Your task to perform on an android device: Go to internet settings Image 0: 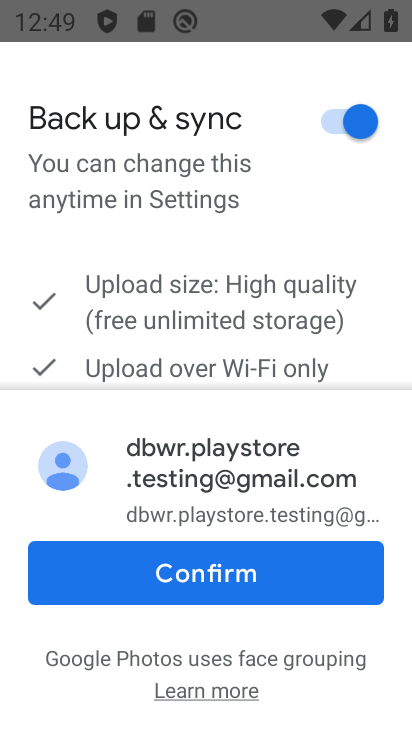
Step 0: click (285, 567)
Your task to perform on an android device: Go to internet settings Image 1: 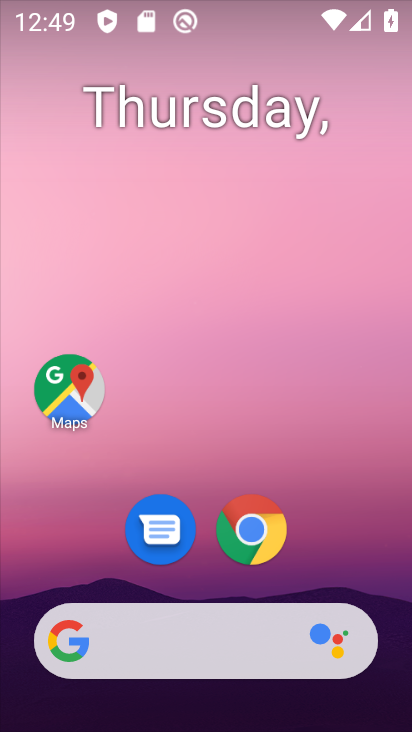
Step 1: drag from (368, 578) to (392, 145)
Your task to perform on an android device: Go to internet settings Image 2: 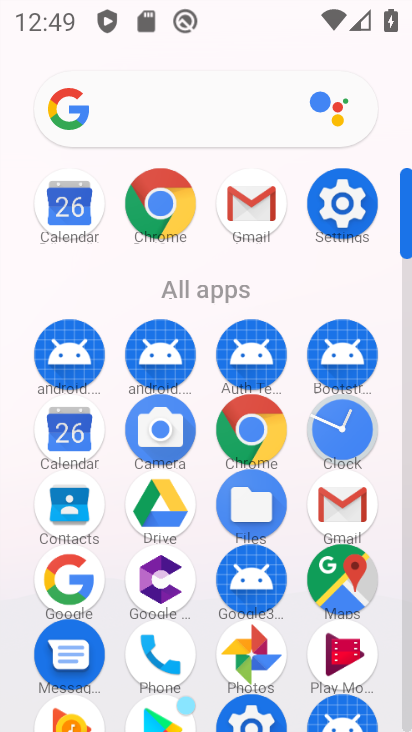
Step 2: click (352, 215)
Your task to perform on an android device: Go to internet settings Image 3: 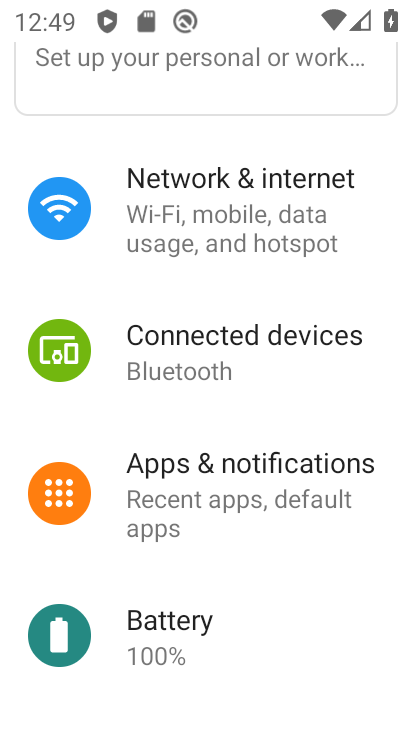
Step 3: drag from (261, 240) to (274, 469)
Your task to perform on an android device: Go to internet settings Image 4: 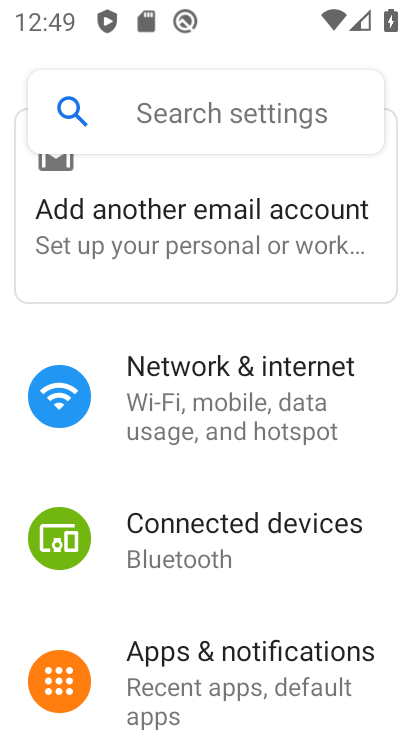
Step 4: click (272, 425)
Your task to perform on an android device: Go to internet settings Image 5: 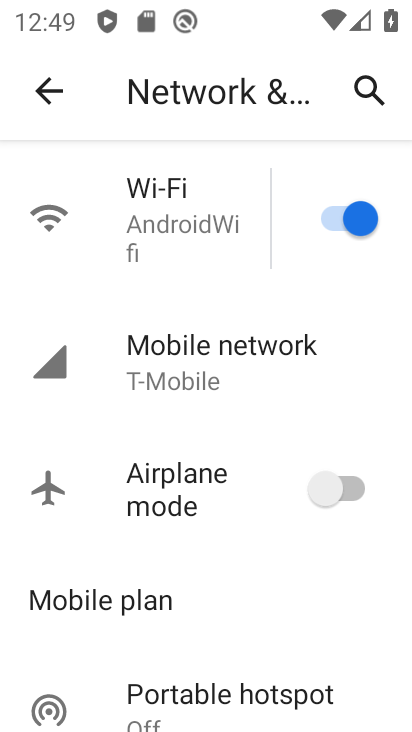
Step 5: task complete